Your task to perform on an android device: Open internet settings Image 0: 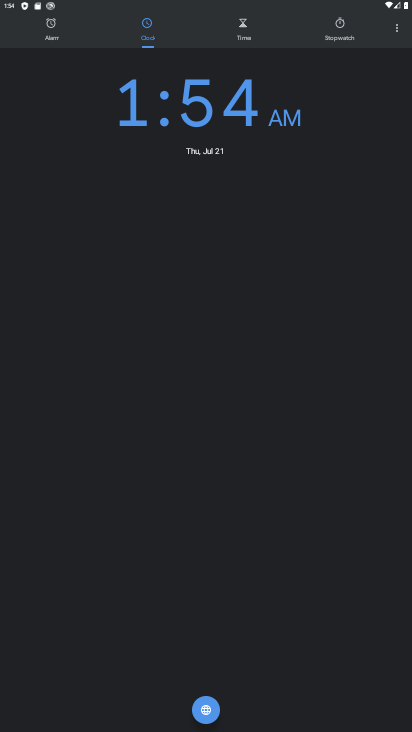
Step 0: press home button
Your task to perform on an android device: Open internet settings Image 1: 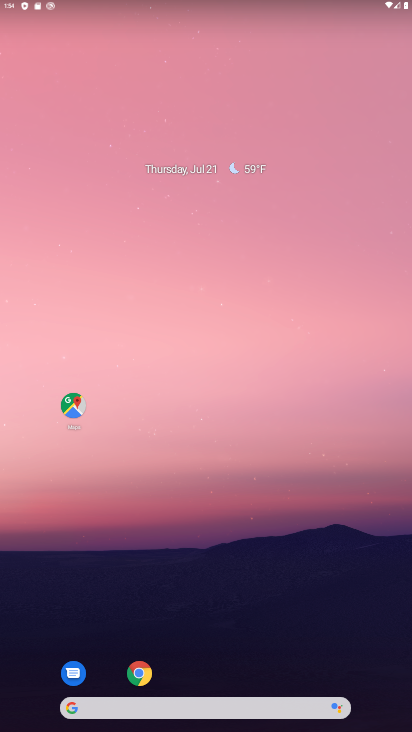
Step 1: drag from (212, 708) to (155, 114)
Your task to perform on an android device: Open internet settings Image 2: 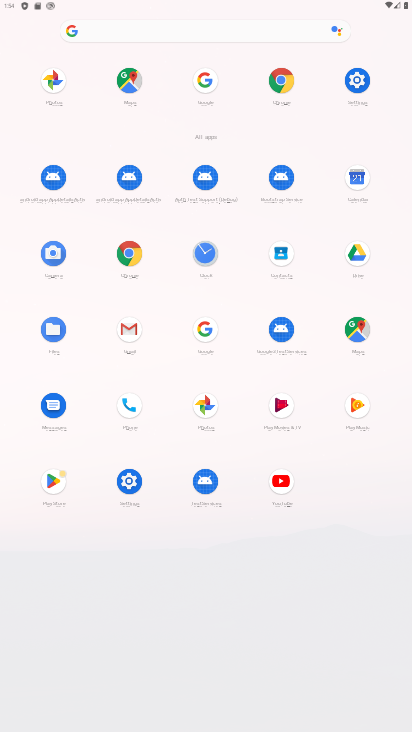
Step 2: click (357, 80)
Your task to perform on an android device: Open internet settings Image 3: 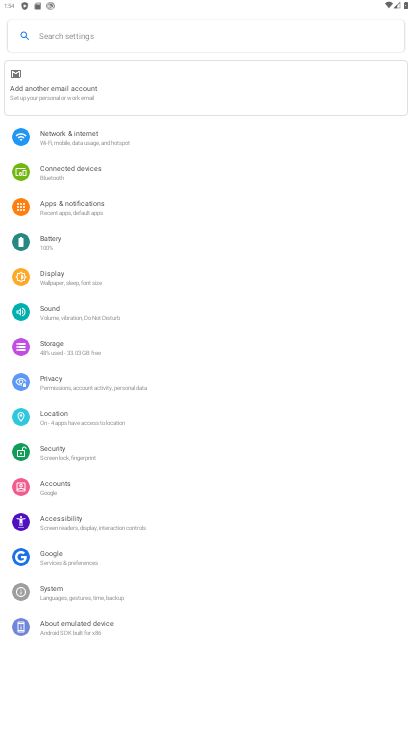
Step 3: click (85, 141)
Your task to perform on an android device: Open internet settings Image 4: 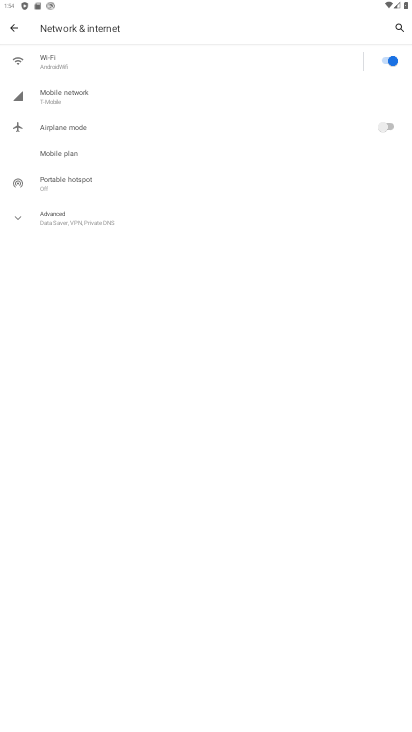
Step 4: task complete